Your task to perform on an android device: toggle notifications settings in the gmail app Image 0: 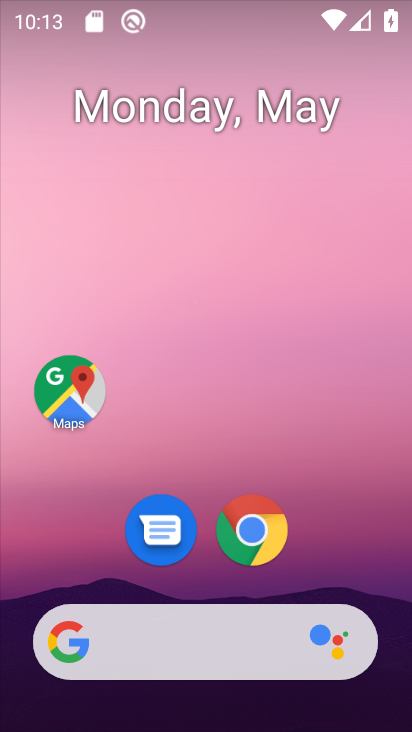
Step 0: drag from (154, 627) to (3, 74)
Your task to perform on an android device: toggle notifications settings in the gmail app Image 1: 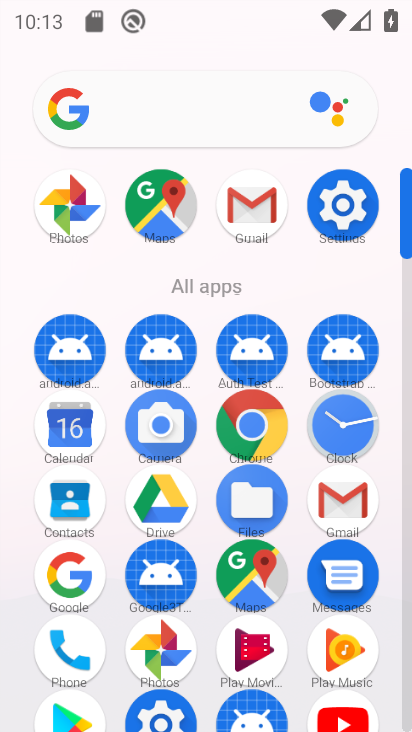
Step 1: click (359, 507)
Your task to perform on an android device: toggle notifications settings in the gmail app Image 2: 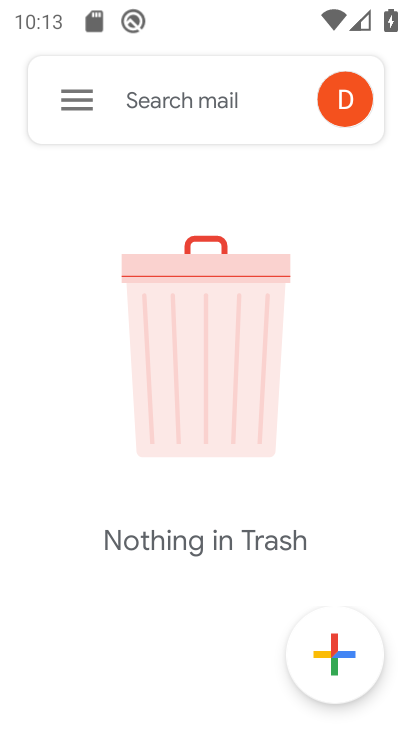
Step 2: click (77, 107)
Your task to perform on an android device: toggle notifications settings in the gmail app Image 3: 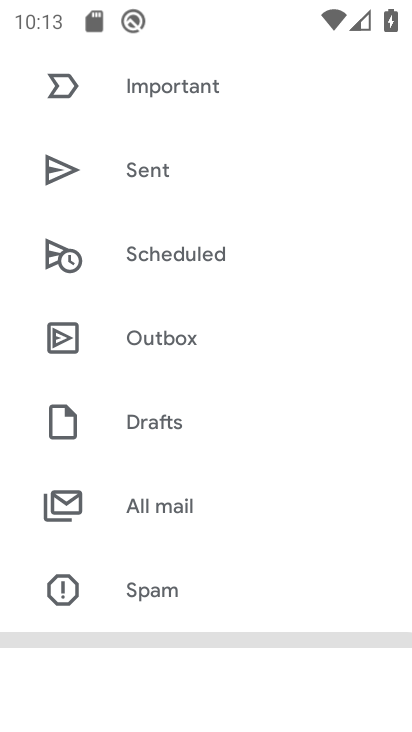
Step 3: drag from (187, 545) to (159, 87)
Your task to perform on an android device: toggle notifications settings in the gmail app Image 4: 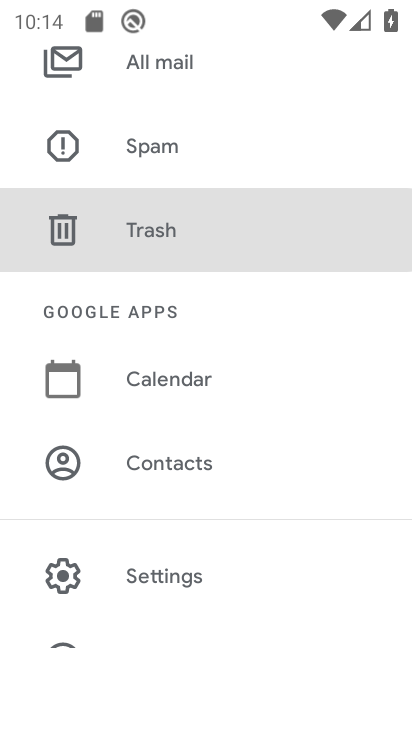
Step 4: click (148, 566)
Your task to perform on an android device: toggle notifications settings in the gmail app Image 5: 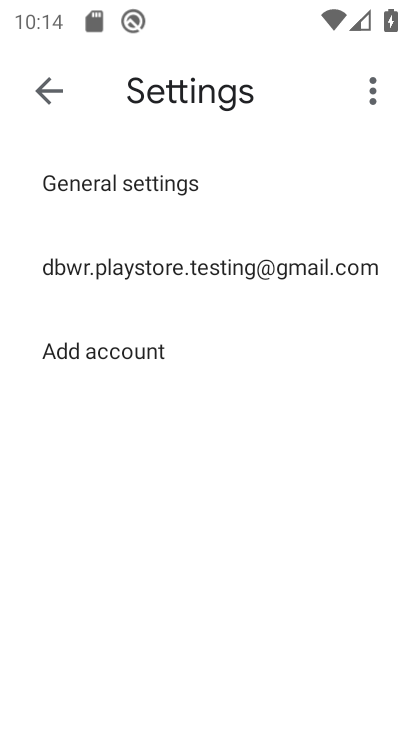
Step 5: click (103, 256)
Your task to perform on an android device: toggle notifications settings in the gmail app Image 6: 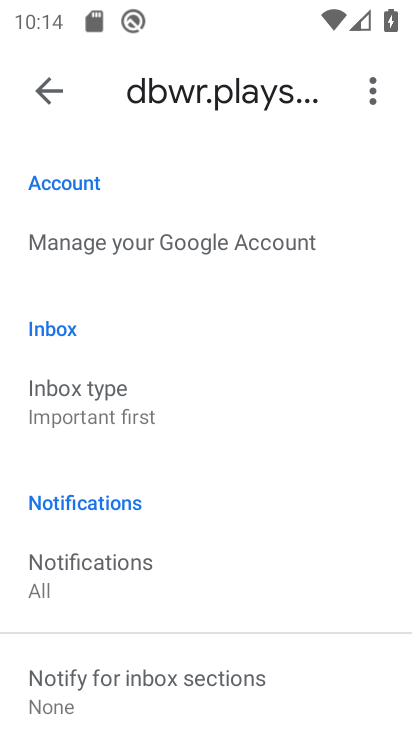
Step 6: drag from (115, 597) to (90, 52)
Your task to perform on an android device: toggle notifications settings in the gmail app Image 7: 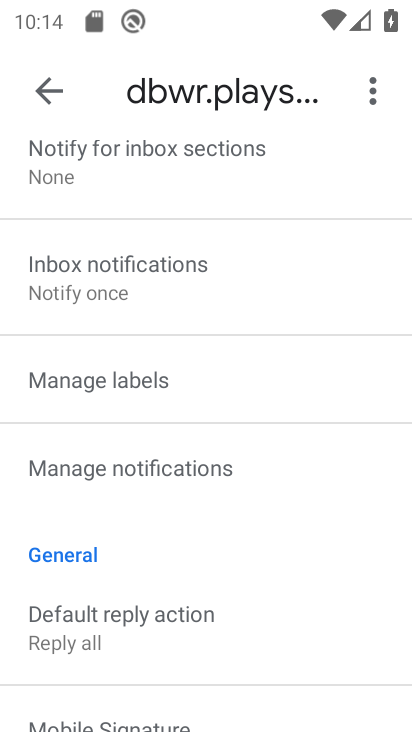
Step 7: click (145, 469)
Your task to perform on an android device: toggle notifications settings in the gmail app Image 8: 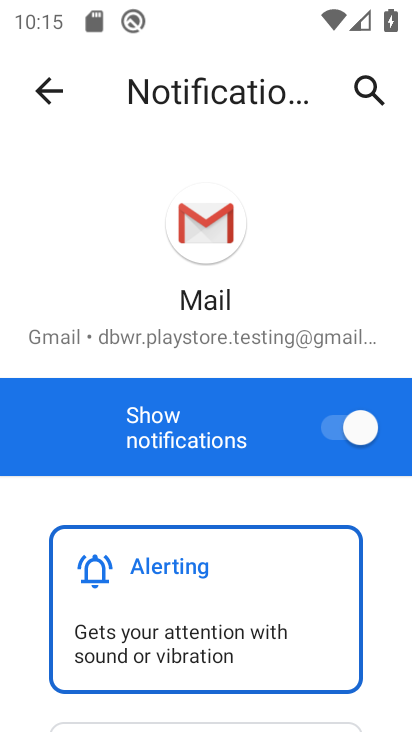
Step 8: click (332, 416)
Your task to perform on an android device: toggle notifications settings in the gmail app Image 9: 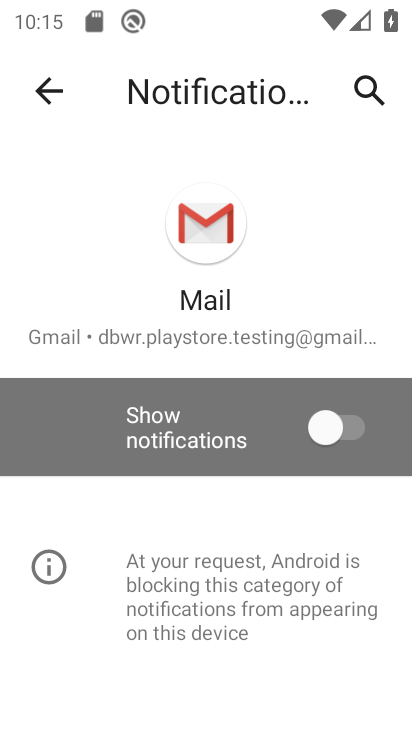
Step 9: task complete